Your task to perform on an android device: turn off location history Image 0: 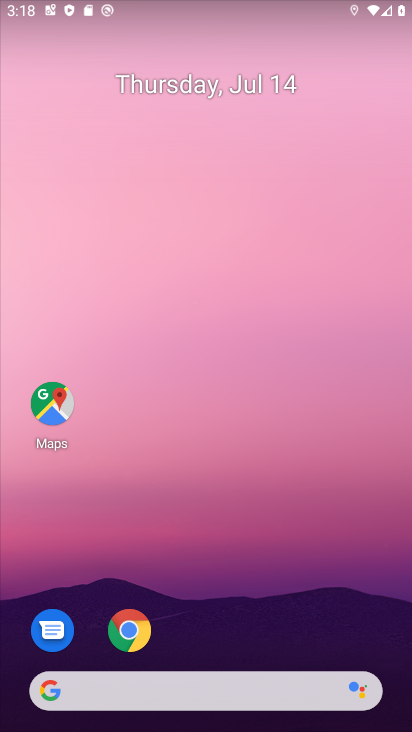
Step 0: drag from (325, 590) to (133, 23)
Your task to perform on an android device: turn off location history Image 1: 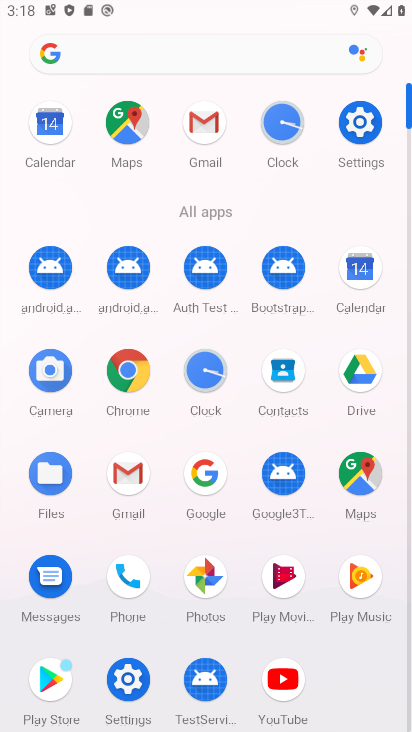
Step 1: click (364, 136)
Your task to perform on an android device: turn off location history Image 2: 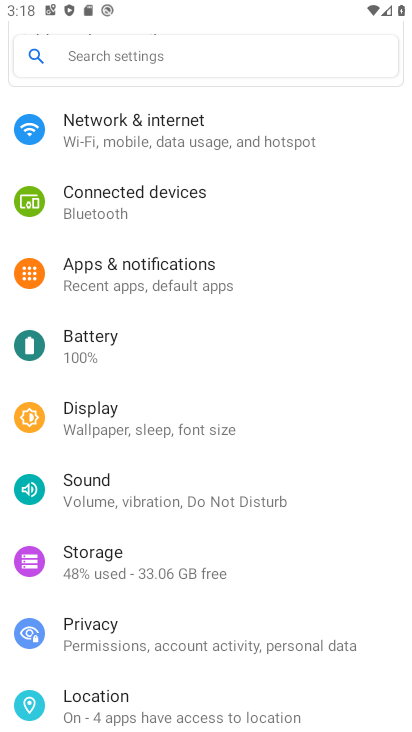
Step 2: click (257, 712)
Your task to perform on an android device: turn off location history Image 3: 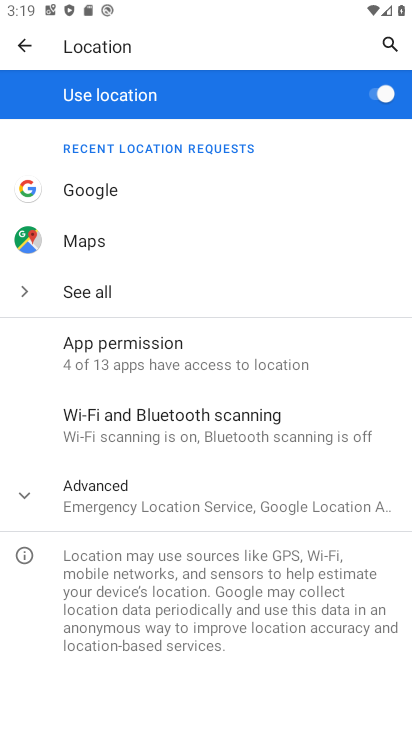
Step 3: click (129, 486)
Your task to perform on an android device: turn off location history Image 4: 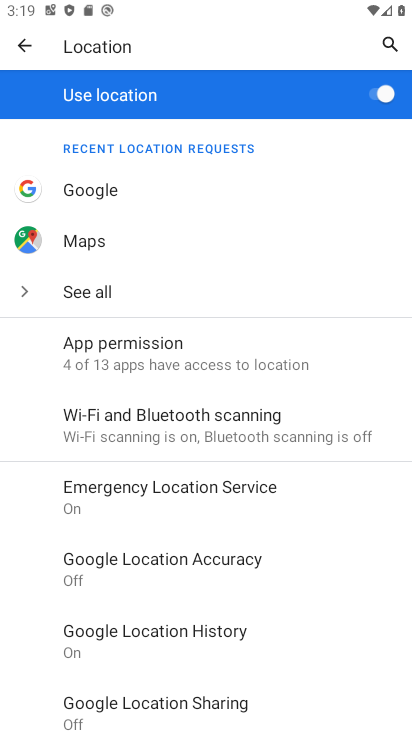
Step 4: click (222, 629)
Your task to perform on an android device: turn off location history Image 5: 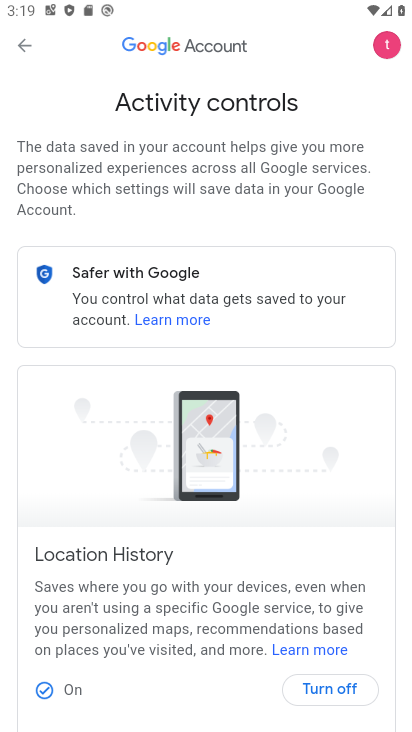
Step 5: click (347, 695)
Your task to perform on an android device: turn off location history Image 6: 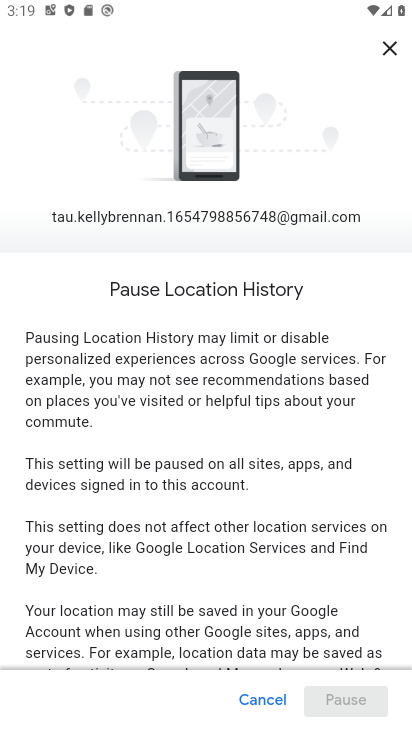
Step 6: drag from (290, 605) to (119, 46)
Your task to perform on an android device: turn off location history Image 7: 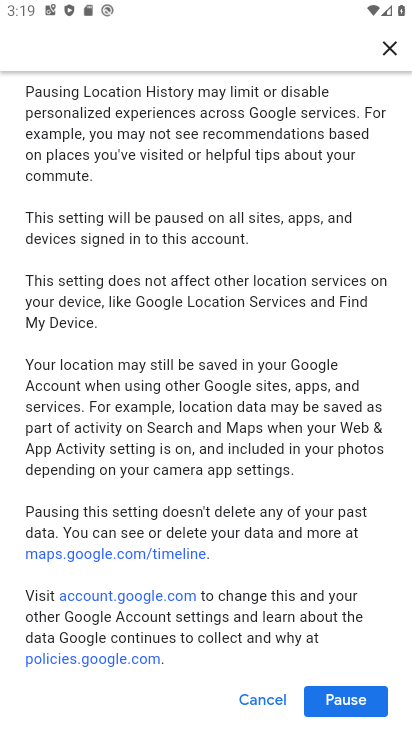
Step 7: click (350, 713)
Your task to perform on an android device: turn off location history Image 8: 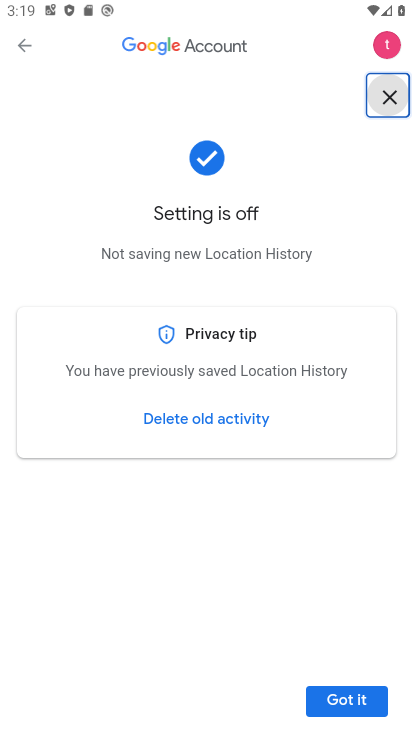
Step 8: click (339, 704)
Your task to perform on an android device: turn off location history Image 9: 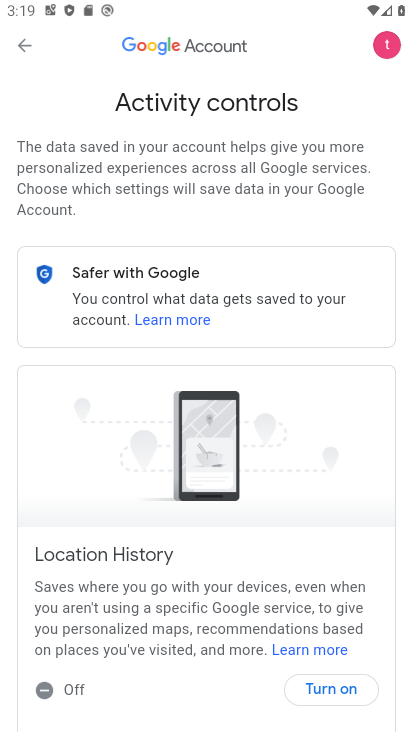
Step 9: task complete